Your task to perform on an android device: turn on improve location accuracy Image 0: 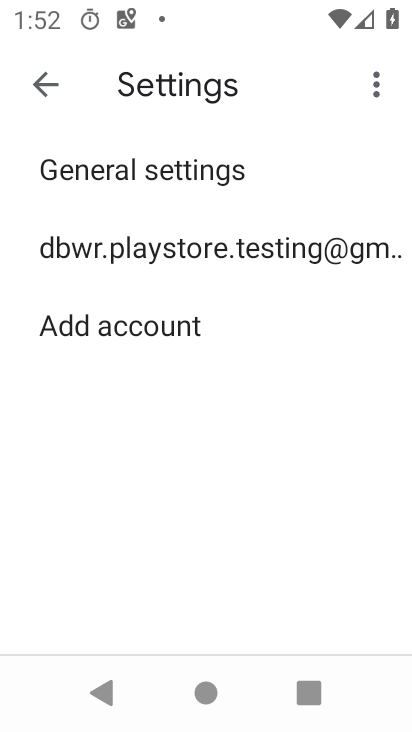
Step 0: press home button
Your task to perform on an android device: turn on improve location accuracy Image 1: 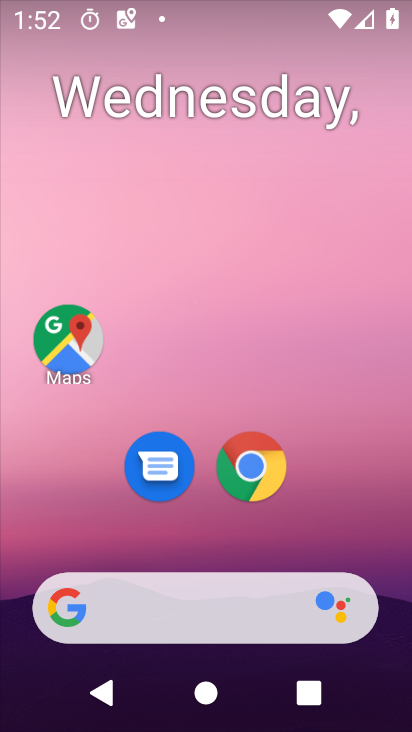
Step 1: drag from (281, 451) to (274, 100)
Your task to perform on an android device: turn on improve location accuracy Image 2: 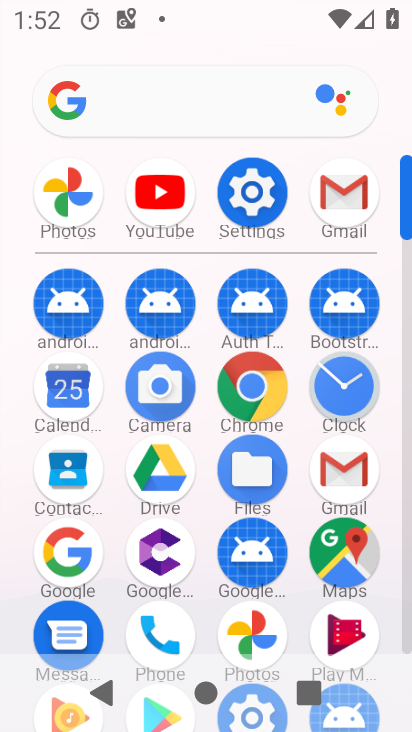
Step 2: click (237, 202)
Your task to perform on an android device: turn on improve location accuracy Image 3: 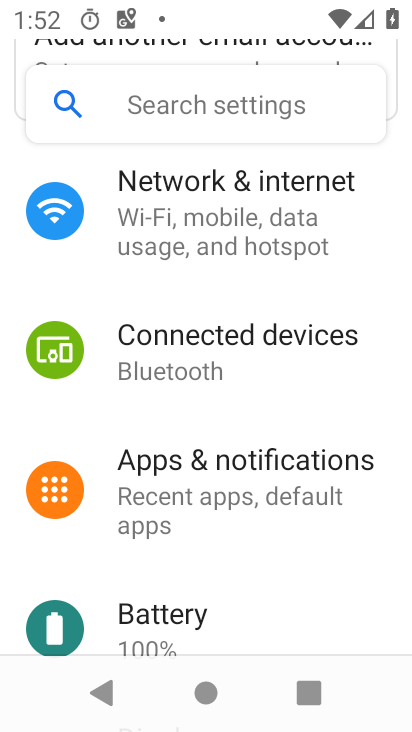
Step 3: drag from (265, 562) to (263, 195)
Your task to perform on an android device: turn on improve location accuracy Image 4: 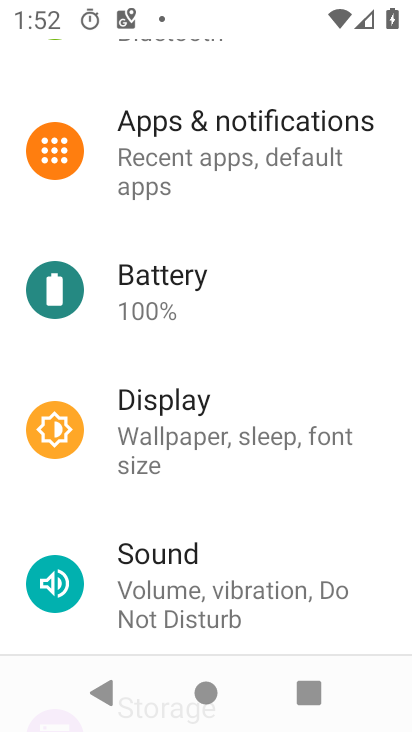
Step 4: drag from (218, 528) to (213, 122)
Your task to perform on an android device: turn on improve location accuracy Image 5: 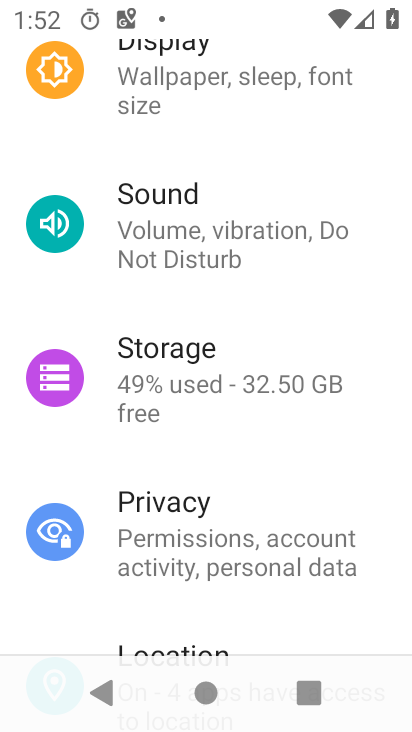
Step 5: drag from (222, 555) to (199, 195)
Your task to perform on an android device: turn on improve location accuracy Image 6: 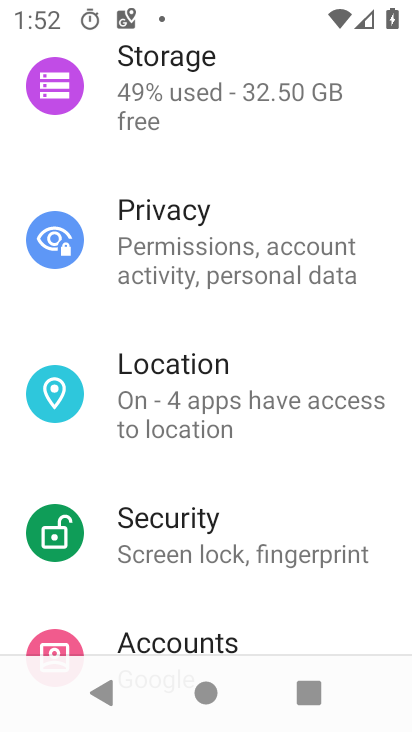
Step 6: click (199, 381)
Your task to perform on an android device: turn on improve location accuracy Image 7: 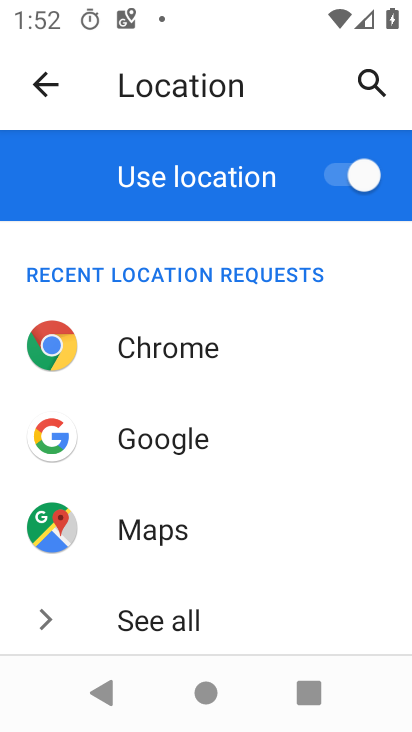
Step 7: drag from (241, 558) to (223, 139)
Your task to perform on an android device: turn on improve location accuracy Image 8: 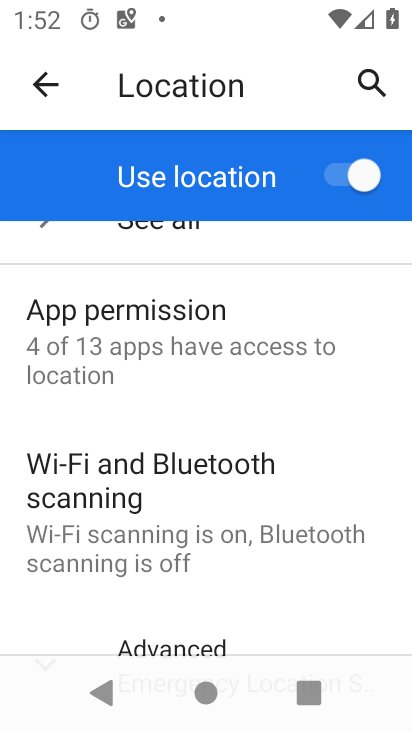
Step 8: drag from (207, 550) to (174, 142)
Your task to perform on an android device: turn on improve location accuracy Image 9: 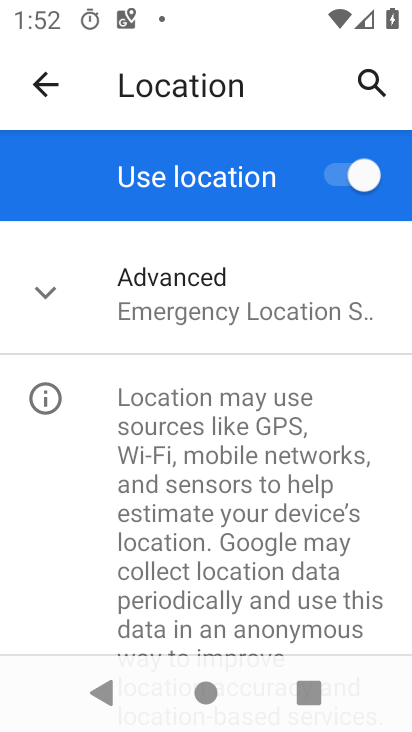
Step 9: click (188, 269)
Your task to perform on an android device: turn on improve location accuracy Image 10: 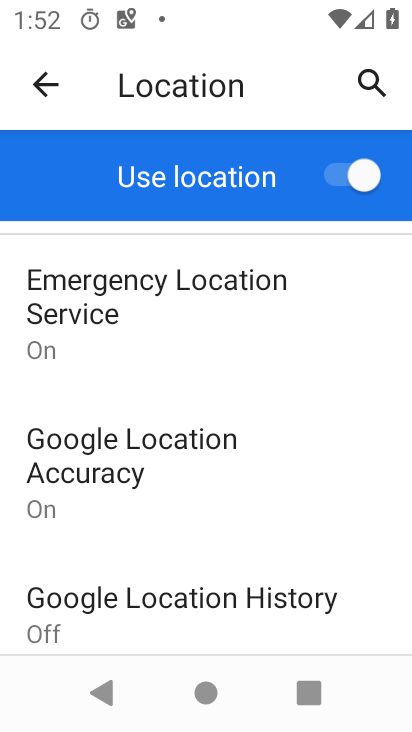
Step 10: drag from (219, 510) to (202, 180)
Your task to perform on an android device: turn on improve location accuracy Image 11: 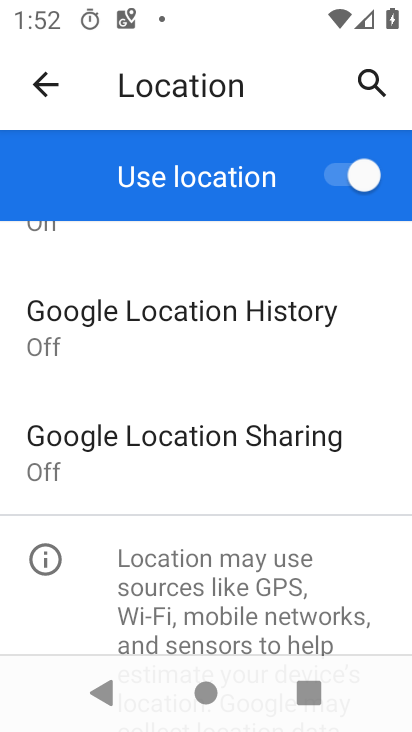
Step 11: drag from (245, 507) to (236, 214)
Your task to perform on an android device: turn on improve location accuracy Image 12: 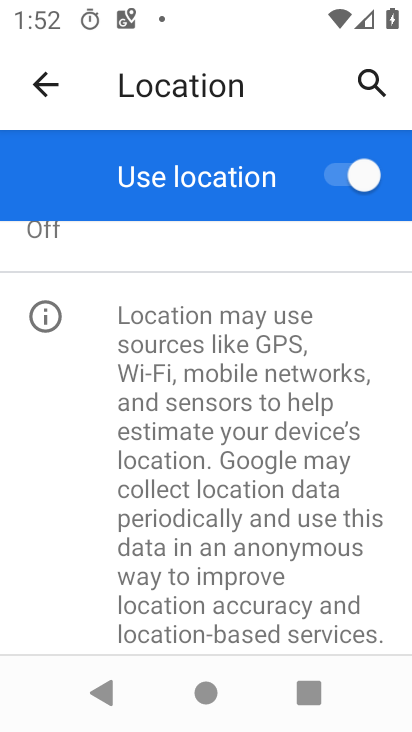
Step 12: drag from (222, 300) to (229, 587)
Your task to perform on an android device: turn on improve location accuracy Image 13: 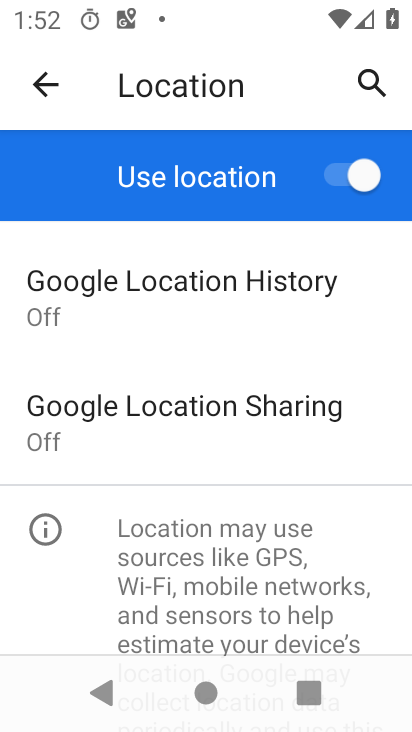
Step 13: drag from (257, 319) to (270, 592)
Your task to perform on an android device: turn on improve location accuracy Image 14: 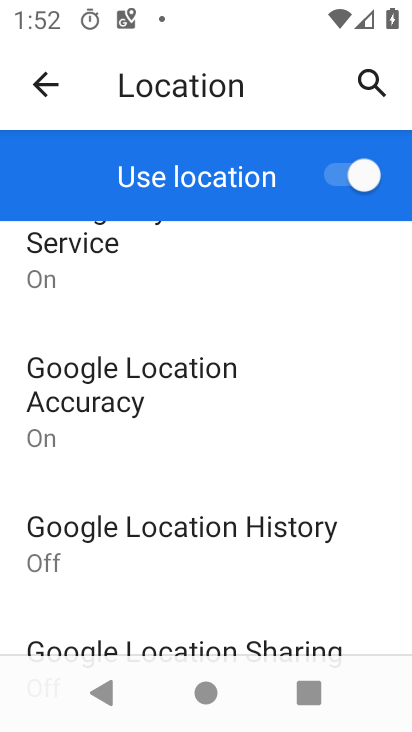
Step 14: drag from (226, 379) to (244, 557)
Your task to perform on an android device: turn on improve location accuracy Image 15: 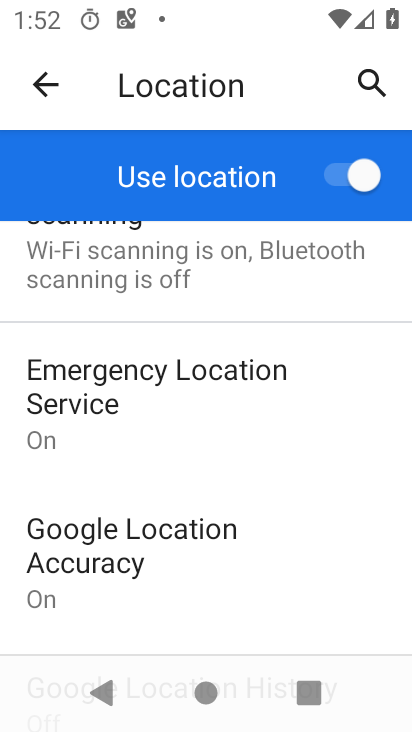
Step 15: click (186, 547)
Your task to perform on an android device: turn on improve location accuracy Image 16: 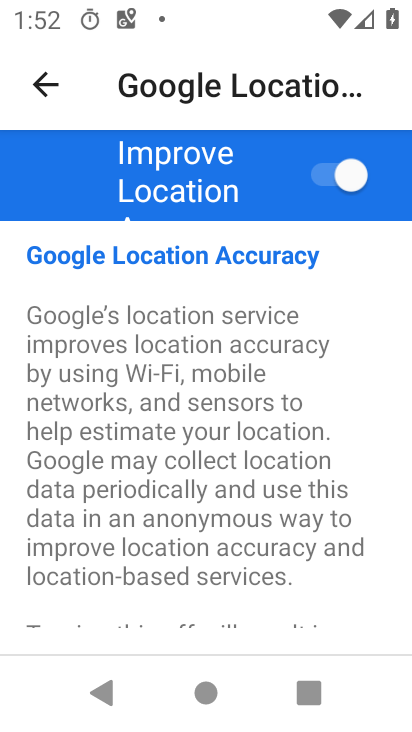
Step 16: task complete